Your task to perform on an android device: turn on priority inbox in the gmail app Image 0: 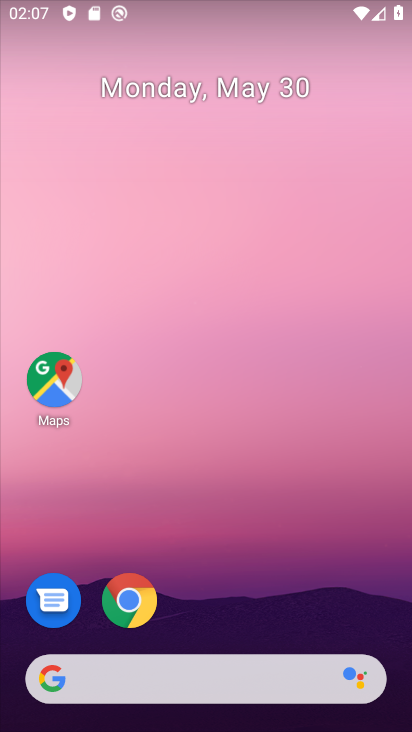
Step 0: drag from (271, 613) to (274, 79)
Your task to perform on an android device: turn on priority inbox in the gmail app Image 1: 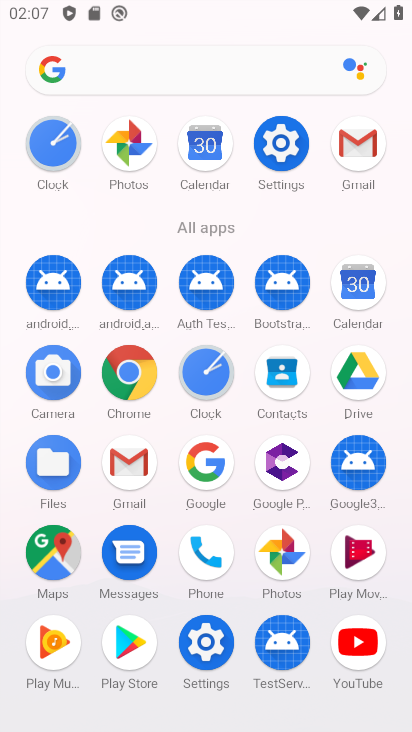
Step 1: click (134, 459)
Your task to perform on an android device: turn on priority inbox in the gmail app Image 2: 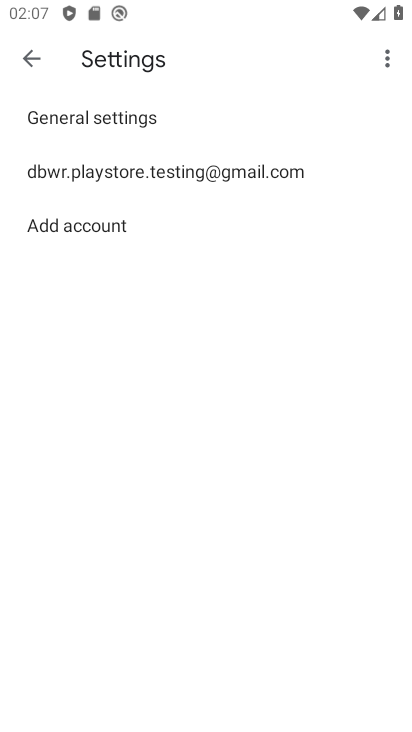
Step 2: click (185, 176)
Your task to perform on an android device: turn on priority inbox in the gmail app Image 3: 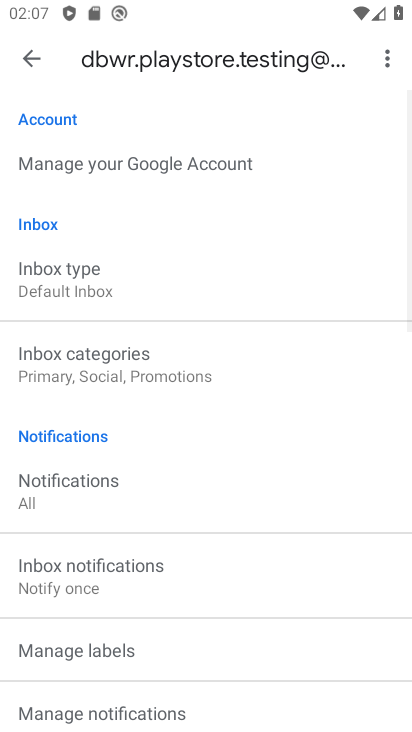
Step 3: click (89, 285)
Your task to perform on an android device: turn on priority inbox in the gmail app Image 4: 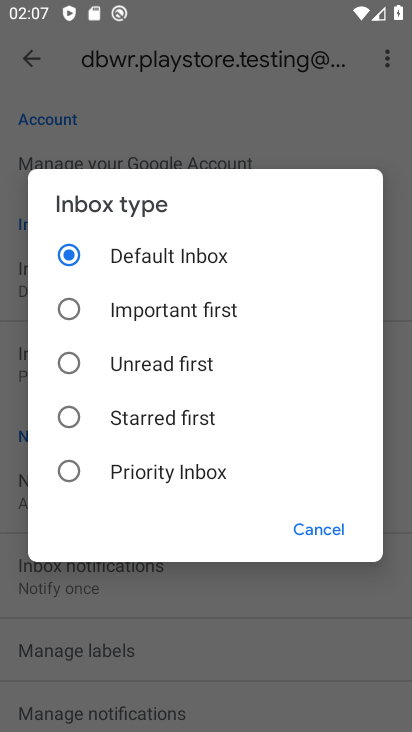
Step 4: click (73, 467)
Your task to perform on an android device: turn on priority inbox in the gmail app Image 5: 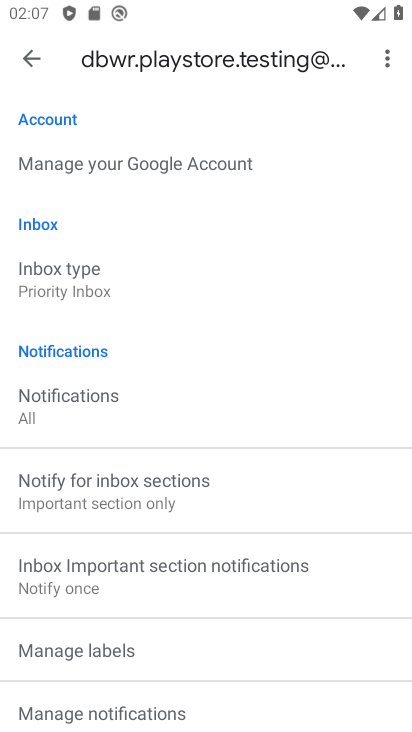
Step 5: task complete